Your task to perform on an android device: check the backup settings in the google photos Image 0: 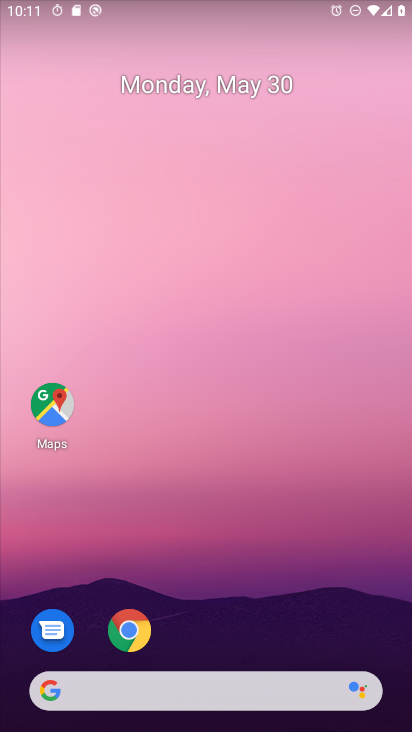
Step 0: drag from (372, 629) to (305, 68)
Your task to perform on an android device: check the backup settings in the google photos Image 1: 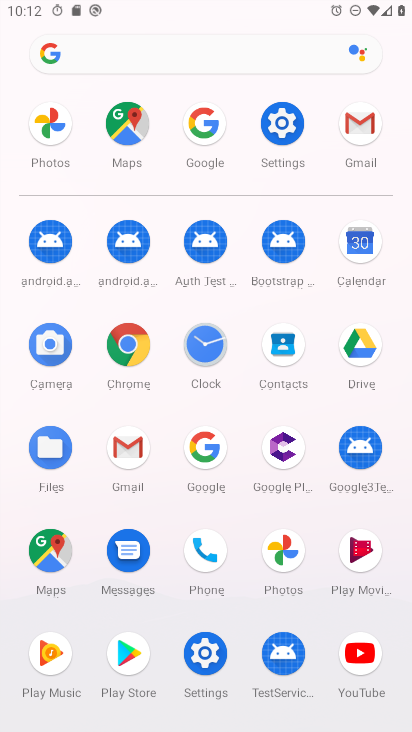
Step 1: click (282, 551)
Your task to perform on an android device: check the backup settings in the google photos Image 2: 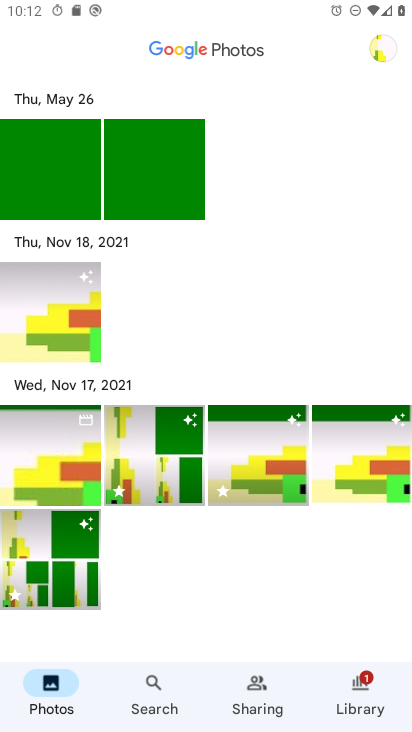
Step 2: click (386, 44)
Your task to perform on an android device: check the backup settings in the google photos Image 3: 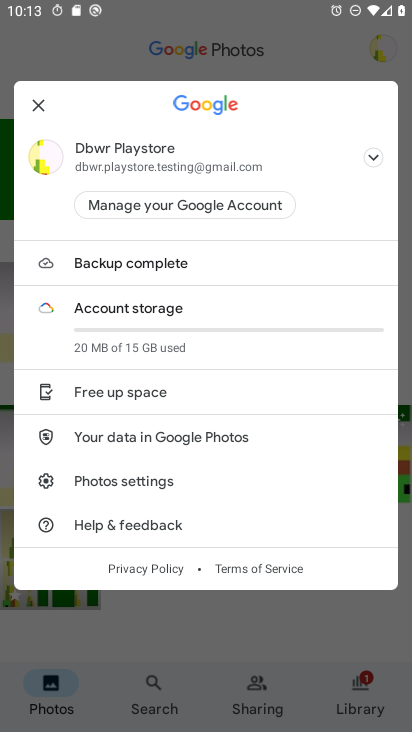
Step 3: click (158, 266)
Your task to perform on an android device: check the backup settings in the google photos Image 4: 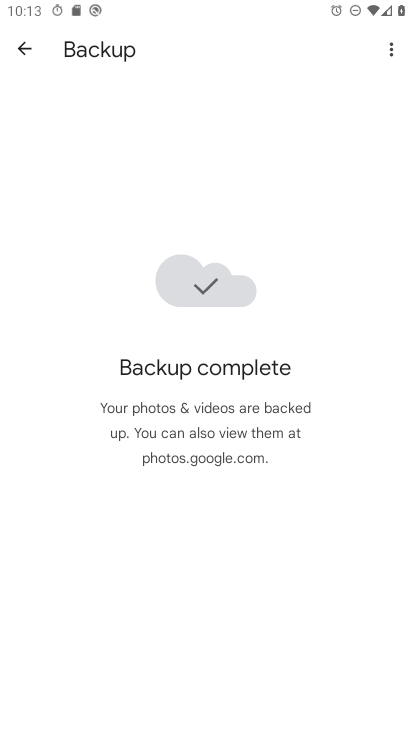
Step 4: task complete